Your task to perform on an android device: empty trash in google photos Image 0: 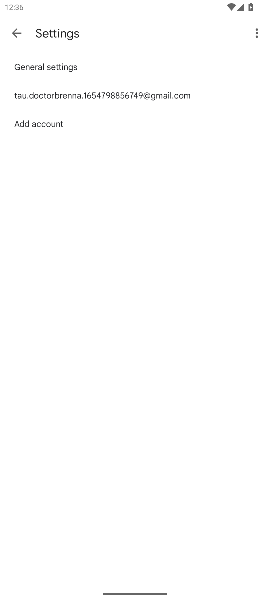
Step 0: press home button
Your task to perform on an android device: empty trash in google photos Image 1: 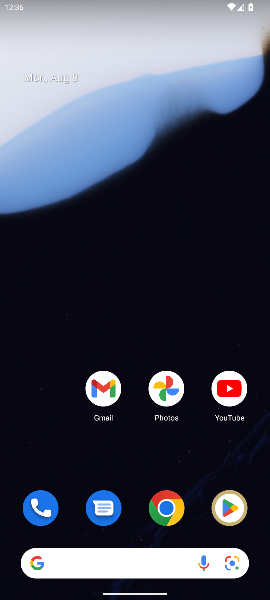
Step 1: drag from (155, 459) to (134, 178)
Your task to perform on an android device: empty trash in google photos Image 2: 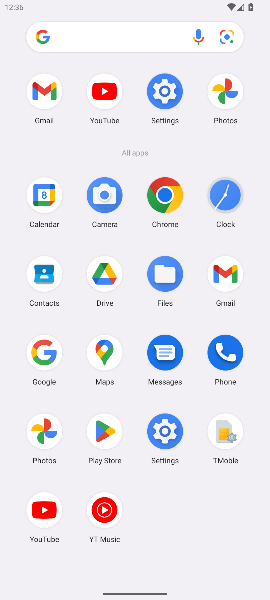
Step 2: click (52, 427)
Your task to perform on an android device: empty trash in google photos Image 3: 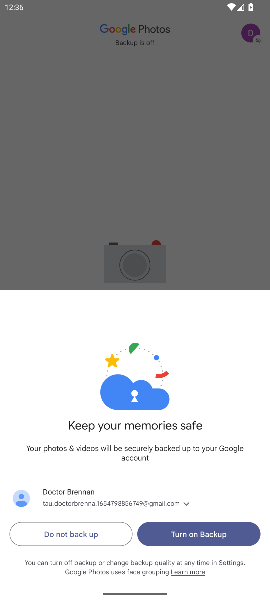
Step 3: click (139, 209)
Your task to perform on an android device: empty trash in google photos Image 4: 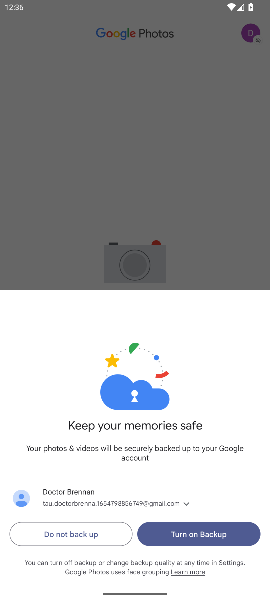
Step 4: click (212, 537)
Your task to perform on an android device: empty trash in google photos Image 5: 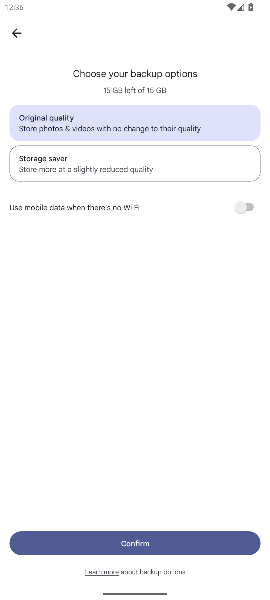
Step 5: click (191, 542)
Your task to perform on an android device: empty trash in google photos Image 6: 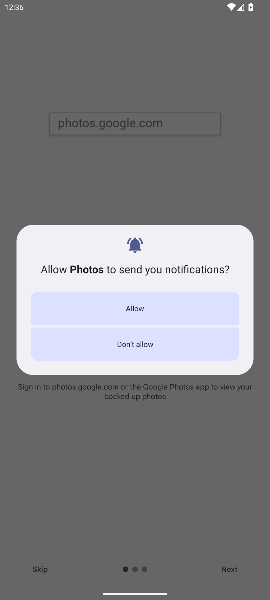
Step 6: click (180, 309)
Your task to perform on an android device: empty trash in google photos Image 7: 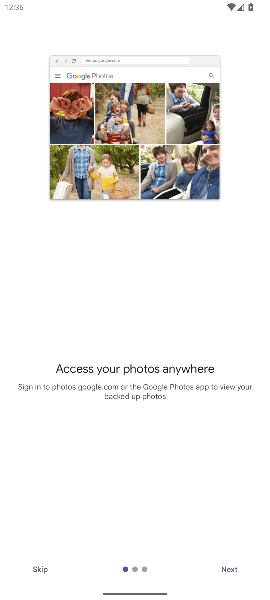
Step 7: click (46, 569)
Your task to perform on an android device: empty trash in google photos Image 8: 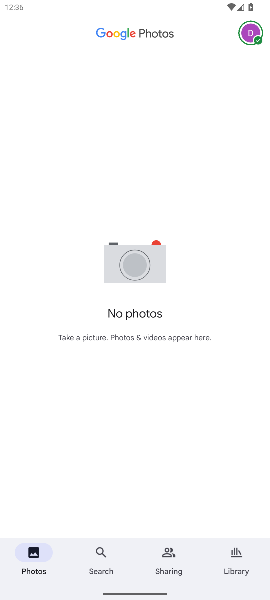
Step 8: click (239, 555)
Your task to perform on an android device: empty trash in google photos Image 9: 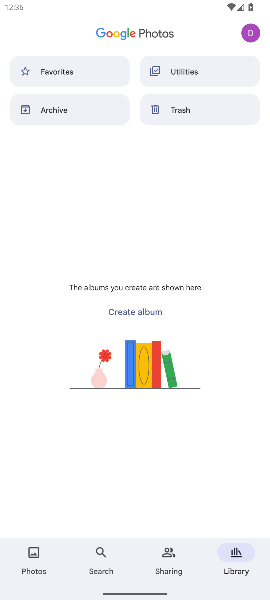
Step 9: click (178, 102)
Your task to perform on an android device: empty trash in google photos Image 10: 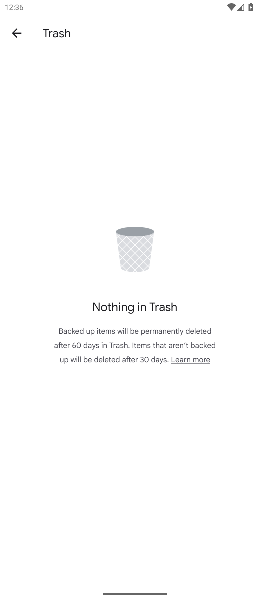
Step 10: task complete